Your task to perform on an android device: change alarm snooze length Image 0: 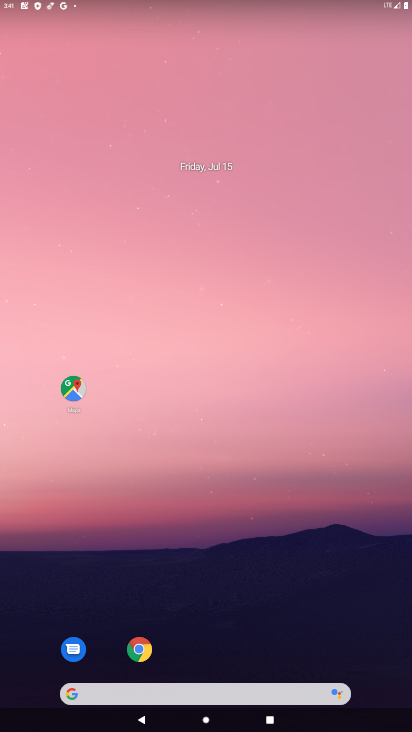
Step 0: drag from (209, 589) to (188, 186)
Your task to perform on an android device: change alarm snooze length Image 1: 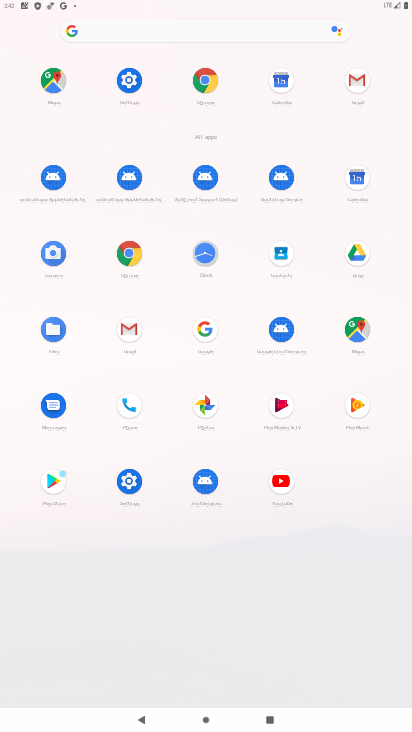
Step 1: click (199, 263)
Your task to perform on an android device: change alarm snooze length Image 2: 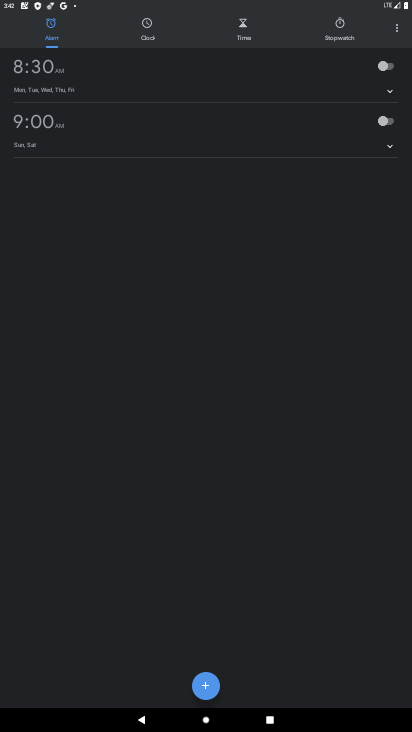
Step 2: click (395, 33)
Your task to perform on an android device: change alarm snooze length Image 3: 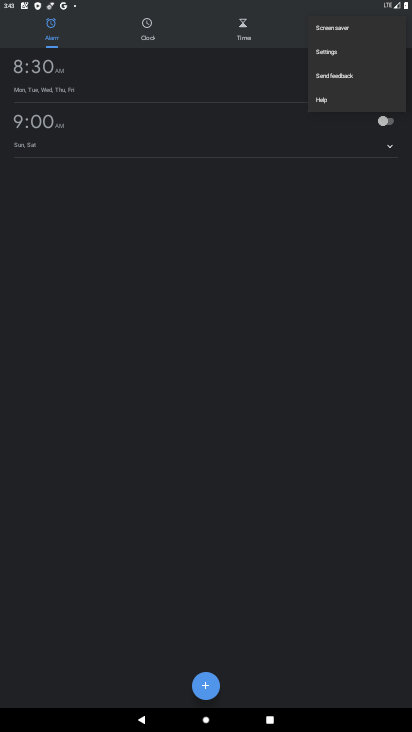
Step 3: click (328, 57)
Your task to perform on an android device: change alarm snooze length Image 4: 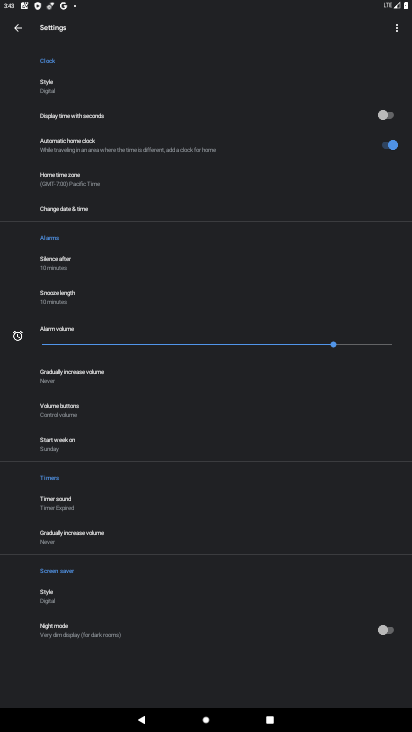
Step 4: click (64, 308)
Your task to perform on an android device: change alarm snooze length Image 5: 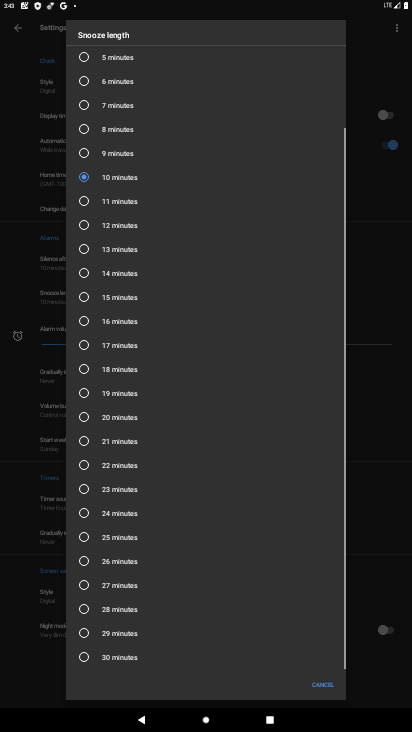
Step 5: click (142, 402)
Your task to perform on an android device: change alarm snooze length Image 6: 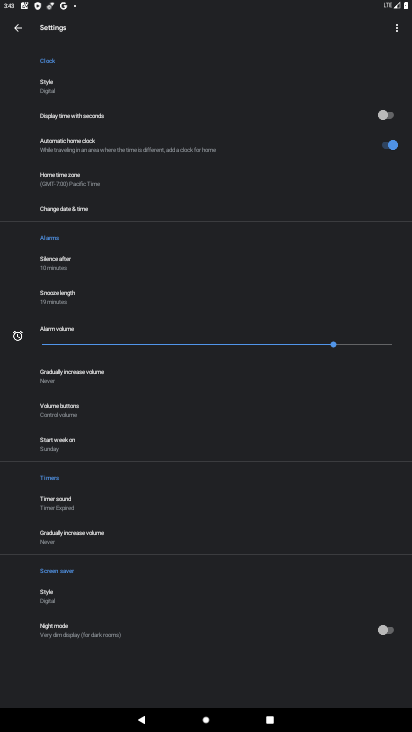
Step 6: task complete